Your task to perform on an android device: Clear the shopping cart on target.com. Search for "beats solo 3" on target.com, select the first entry, and add it to the cart. Image 0: 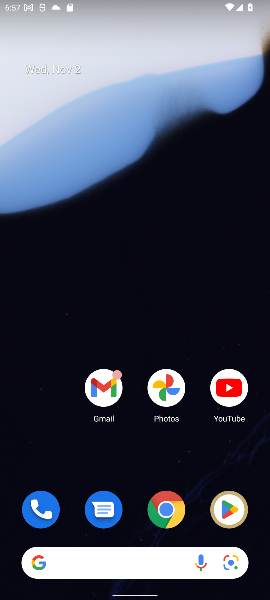
Step 0: click (142, 561)
Your task to perform on an android device: Clear the shopping cart on target.com. Search for "beats solo 3" on target.com, select the first entry, and add it to the cart. Image 1: 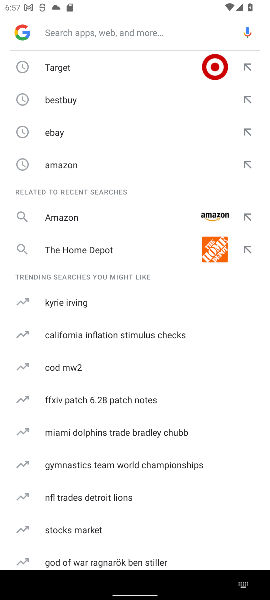
Step 1: click (60, 70)
Your task to perform on an android device: Clear the shopping cart on target.com. Search for "beats solo 3" on target.com, select the first entry, and add it to the cart. Image 2: 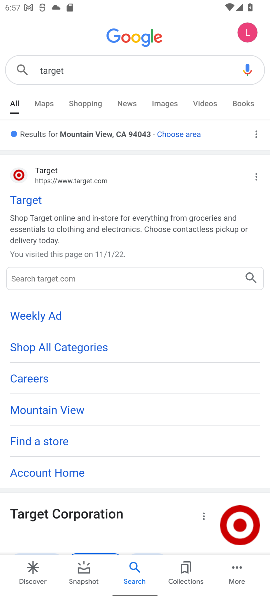
Step 2: click (26, 201)
Your task to perform on an android device: Clear the shopping cart on target.com. Search for "beats solo 3" on target.com, select the first entry, and add it to the cart. Image 3: 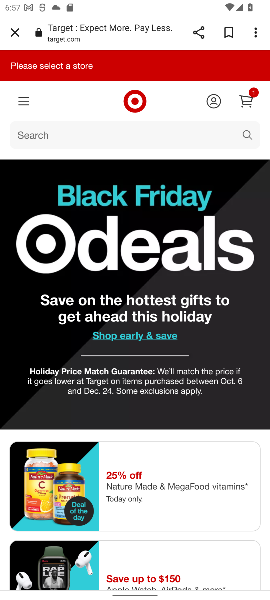
Step 3: click (249, 97)
Your task to perform on an android device: Clear the shopping cart on target.com. Search for "beats solo 3" on target.com, select the first entry, and add it to the cart. Image 4: 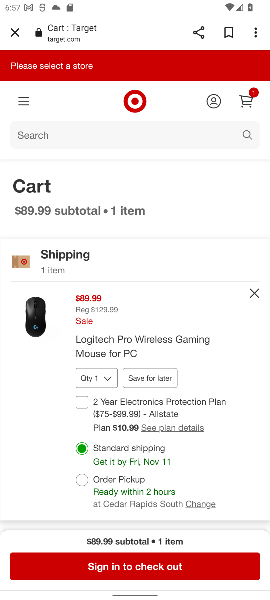
Step 4: click (255, 291)
Your task to perform on an android device: Clear the shopping cart on target.com. Search for "beats solo 3" on target.com, select the first entry, and add it to the cart. Image 5: 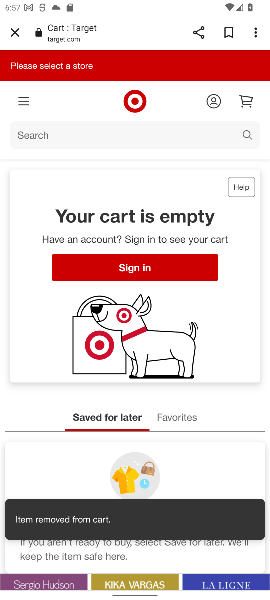
Step 5: click (50, 133)
Your task to perform on an android device: Clear the shopping cart on target.com. Search for "beats solo 3" on target.com, select the first entry, and add it to the cart. Image 6: 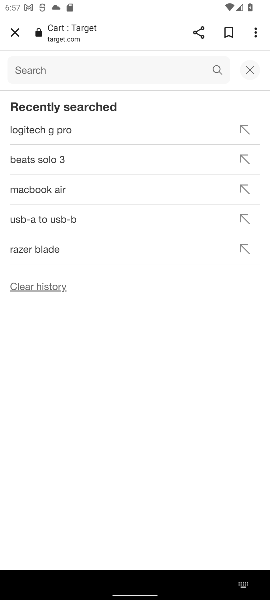
Step 6: type "beats solo 3"
Your task to perform on an android device: Clear the shopping cart on target.com. Search for "beats solo 3" on target.com, select the first entry, and add it to the cart. Image 7: 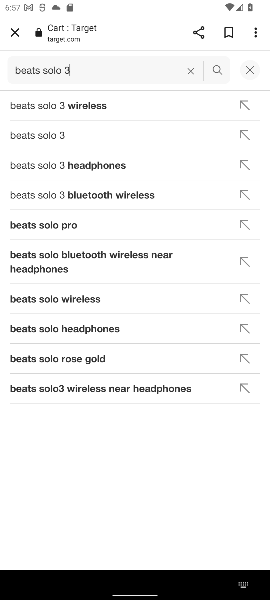
Step 7: click (39, 135)
Your task to perform on an android device: Clear the shopping cart on target.com. Search for "beats solo 3" on target.com, select the first entry, and add it to the cart. Image 8: 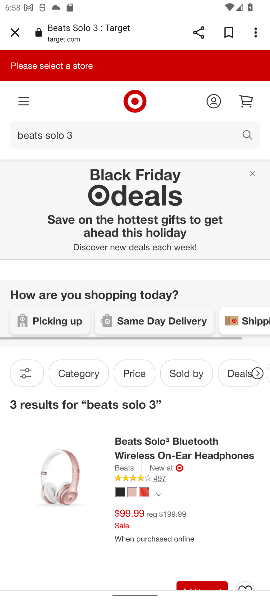
Step 8: click (252, 175)
Your task to perform on an android device: Clear the shopping cart on target.com. Search for "beats solo 3" on target.com, select the first entry, and add it to the cart. Image 9: 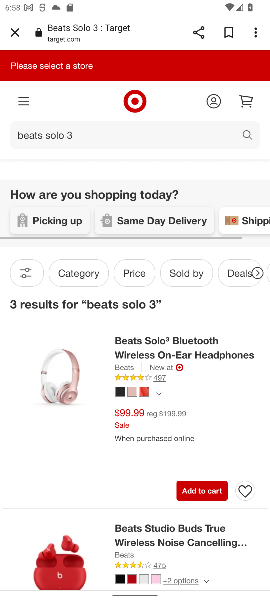
Step 9: click (197, 490)
Your task to perform on an android device: Clear the shopping cart on target.com. Search for "beats solo 3" on target.com, select the first entry, and add it to the cart. Image 10: 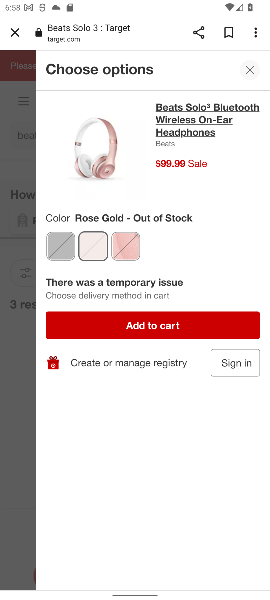
Step 10: click (145, 328)
Your task to perform on an android device: Clear the shopping cart on target.com. Search for "beats solo 3" on target.com, select the first entry, and add it to the cart. Image 11: 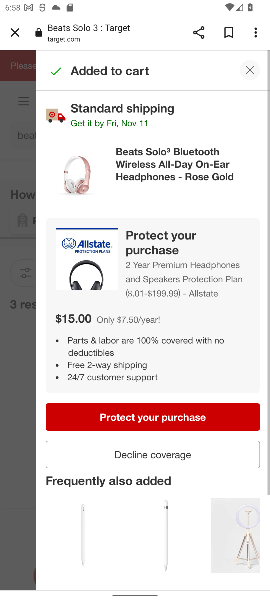
Step 11: task complete